Your task to perform on an android device: See recent photos Image 0: 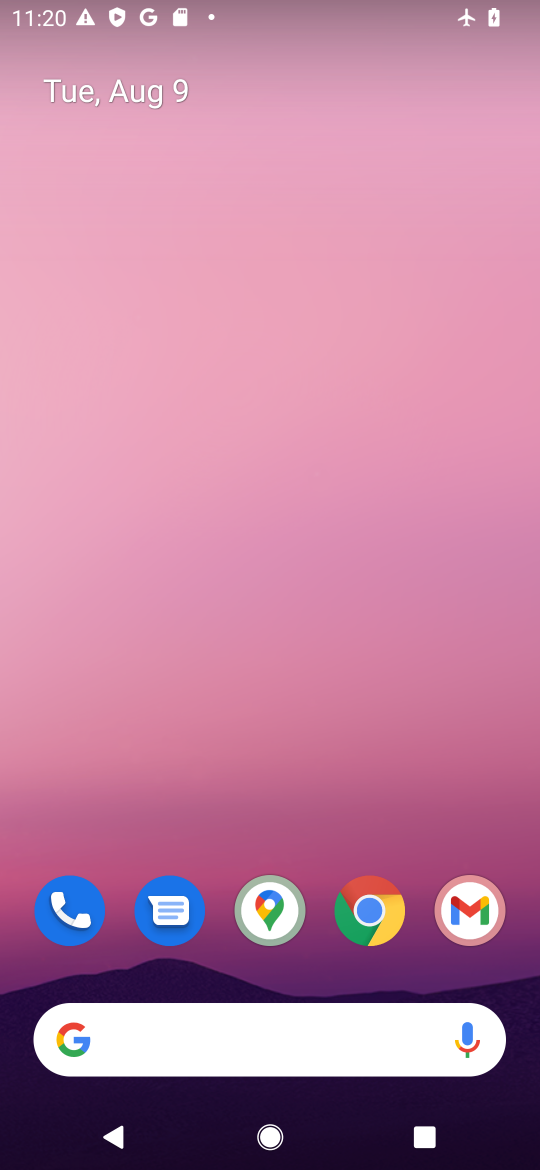
Step 0: drag from (61, 912) to (312, 102)
Your task to perform on an android device: See recent photos Image 1: 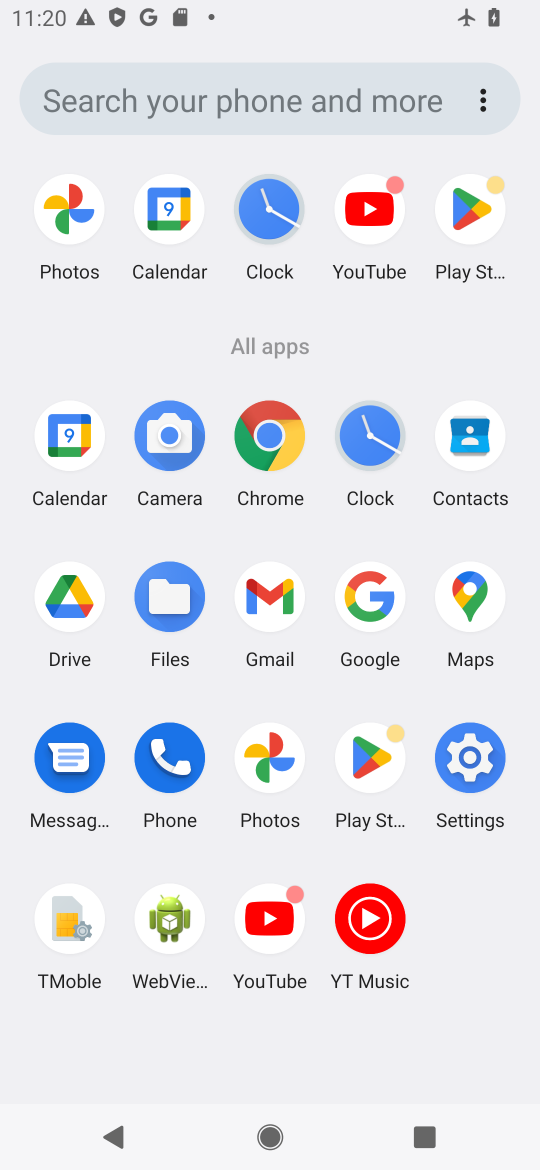
Step 1: click (55, 245)
Your task to perform on an android device: See recent photos Image 2: 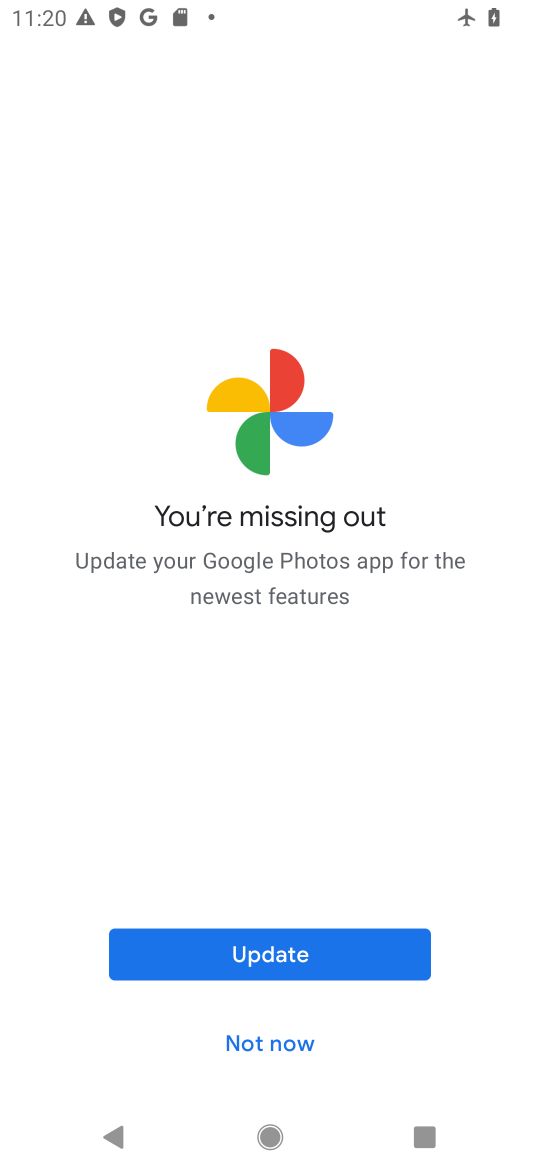
Step 2: click (271, 1043)
Your task to perform on an android device: See recent photos Image 3: 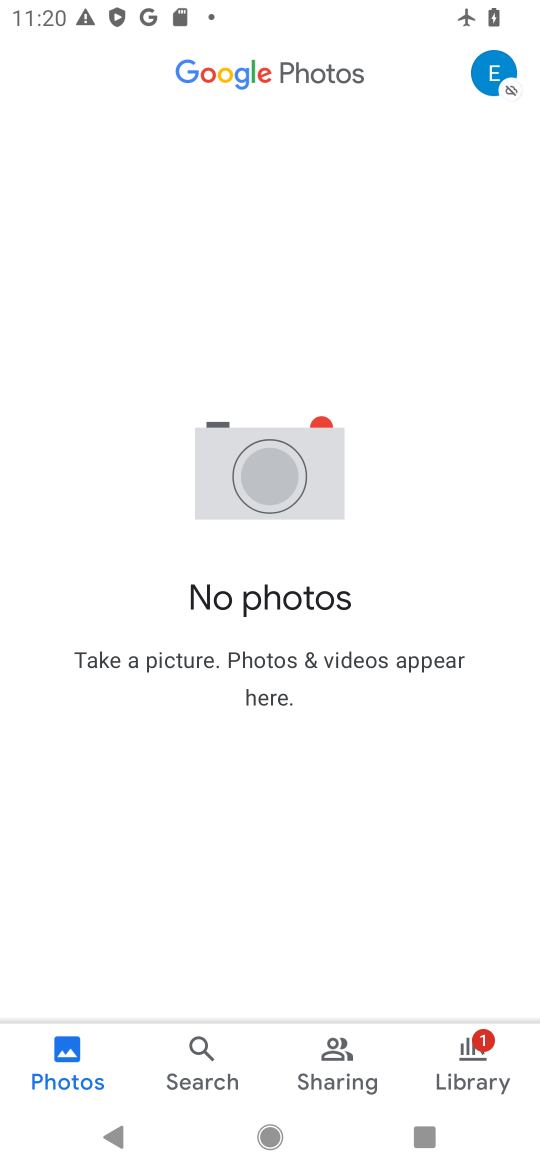
Step 3: task complete